Your task to perform on an android device: Go to Wikipedia Image 0: 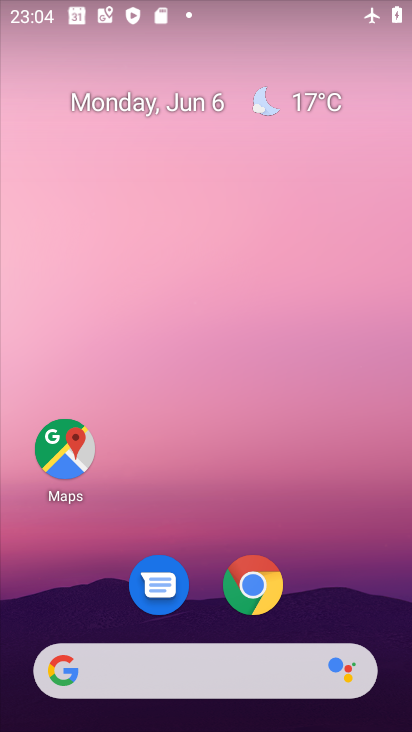
Step 0: click (262, 587)
Your task to perform on an android device: Go to Wikipedia Image 1: 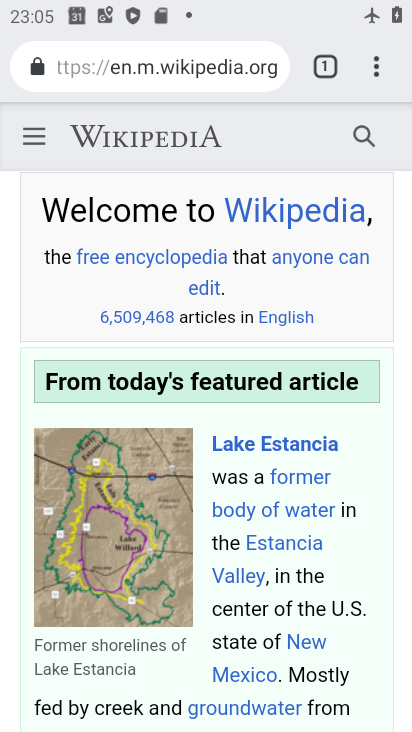
Step 1: task complete